Your task to perform on an android device: Set the phone to "Do not disturb". Image 0: 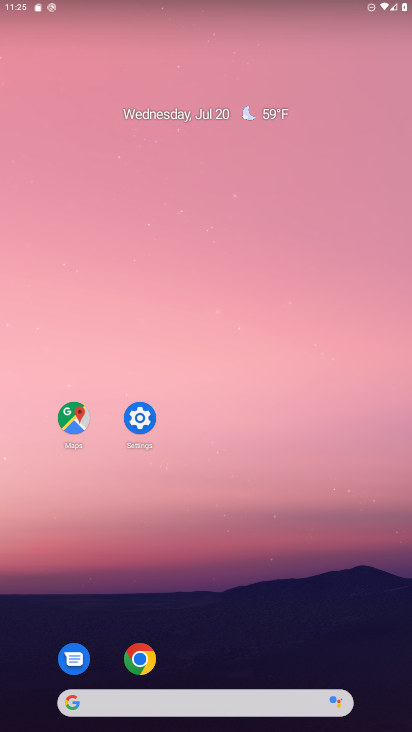
Step 0: press back button
Your task to perform on an android device: Set the phone to "Do not disturb". Image 1: 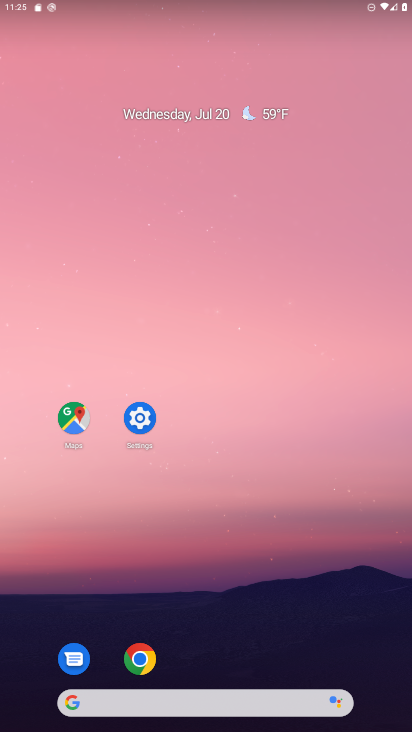
Step 1: drag from (363, 670) to (236, 69)
Your task to perform on an android device: Set the phone to "Do not disturb". Image 2: 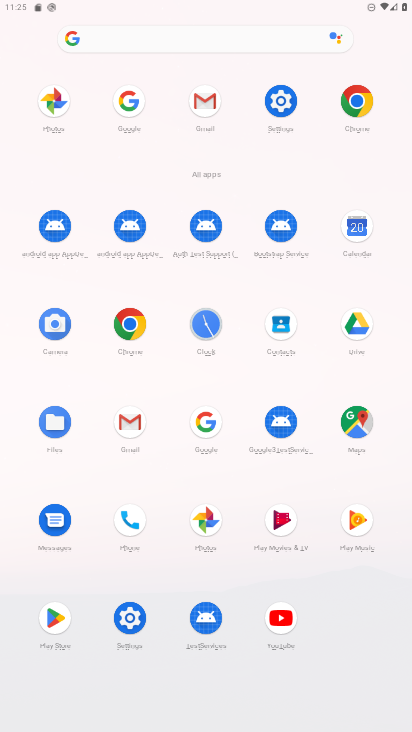
Step 2: click (134, 616)
Your task to perform on an android device: Set the phone to "Do not disturb". Image 3: 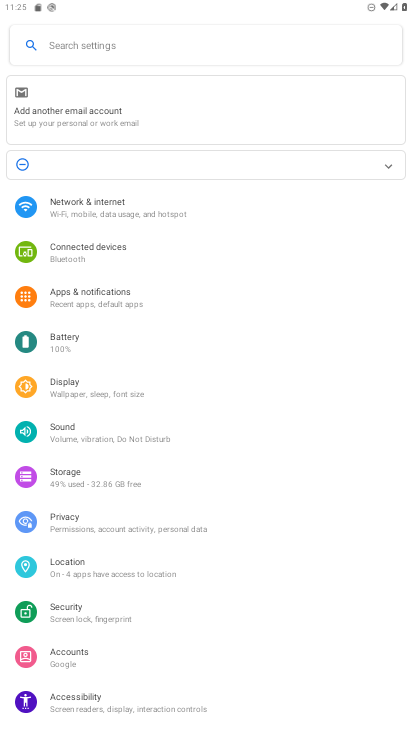
Step 3: click (73, 443)
Your task to perform on an android device: Set the phone to "Do not disturb". Image 4: 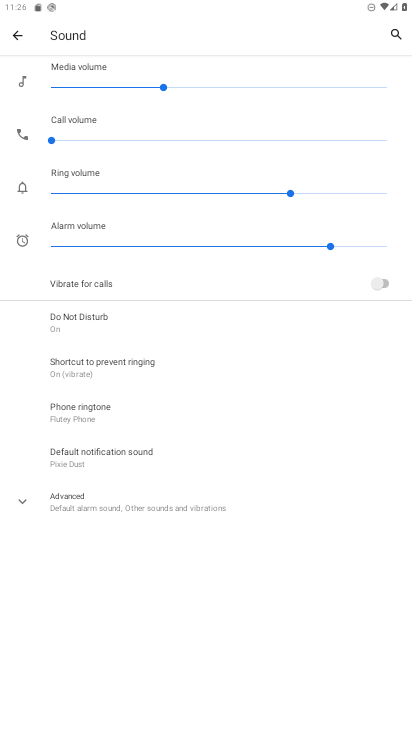
Step 4: click (134, 322)
Your task to perform on an android device: Set the phone to "Do not disturb". Image 5: 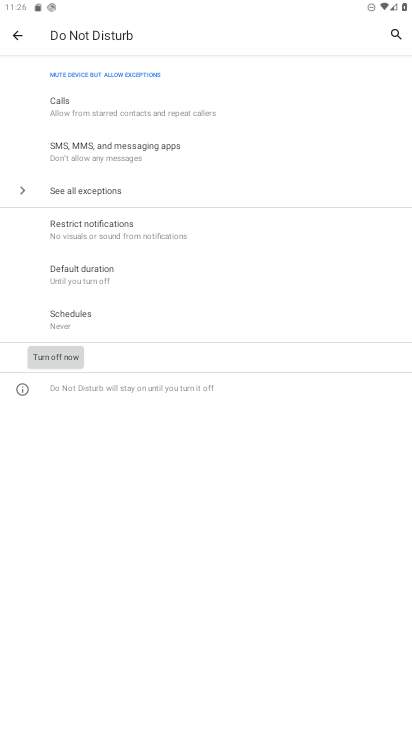
Step 5: task complete